Your task to perform on an android device: delete location history Image 0: 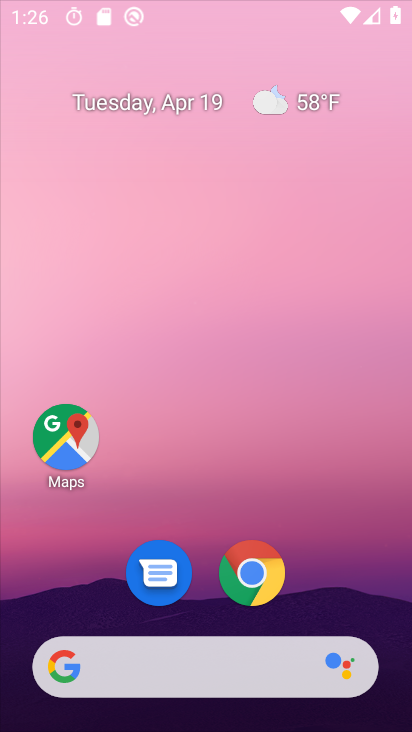
Step 0: drag from (339, 567) to (307, 17)
Your task to perform on an android device: delete location history Image 1: 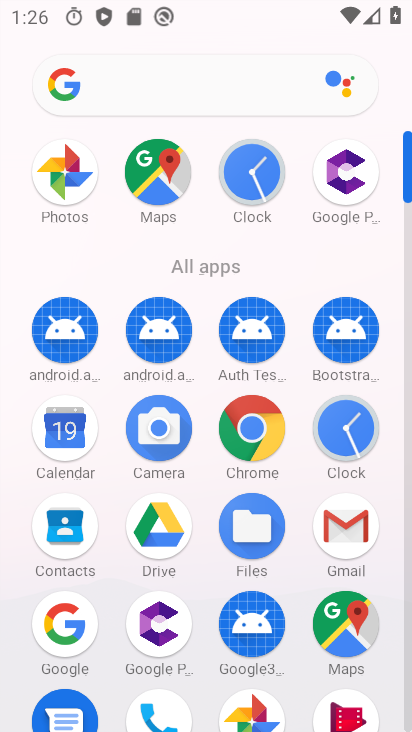
Step 1: click (188, 190)
Your task to perform on an android device: delete location history Image 2: 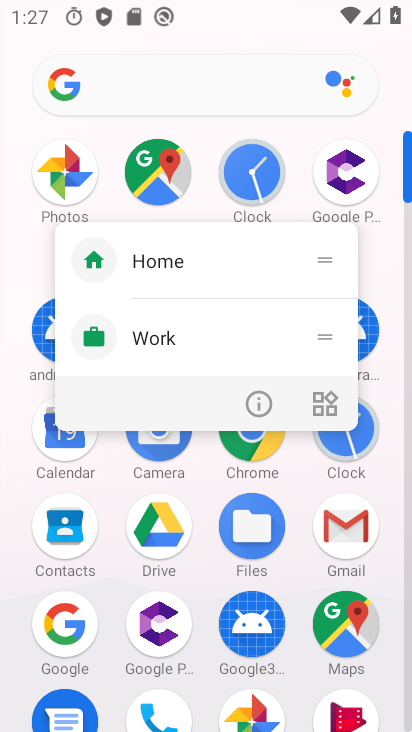
Step 2: click (175, 170)
Your task to perform on an android device: delete location history Image 3: 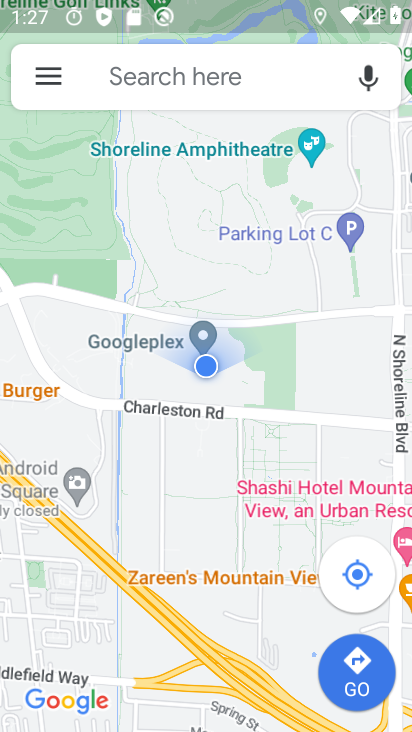
Step 3: task complete